Your task to perform on an android device: turn on data saver in the chrome app Image 0: 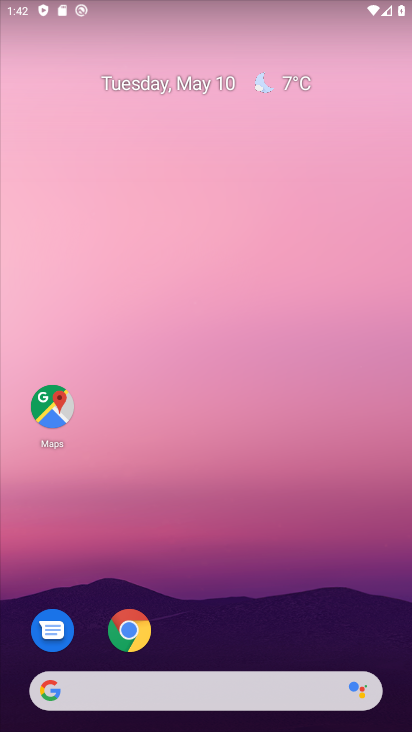
Step 0: drag from (272, 577) to (180, 0)
Your task to perform on an android device: turn on data saver in the chrome app Image 1: 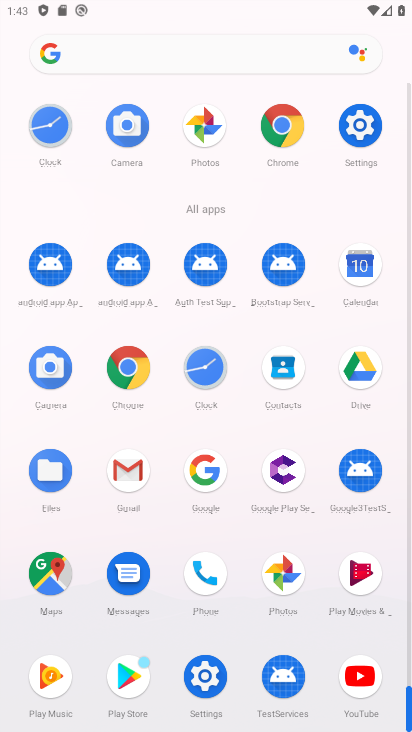
Step 1: click (124, 364)
Your task to perform on an android device: turn on data saver in the chrome app Image 2: 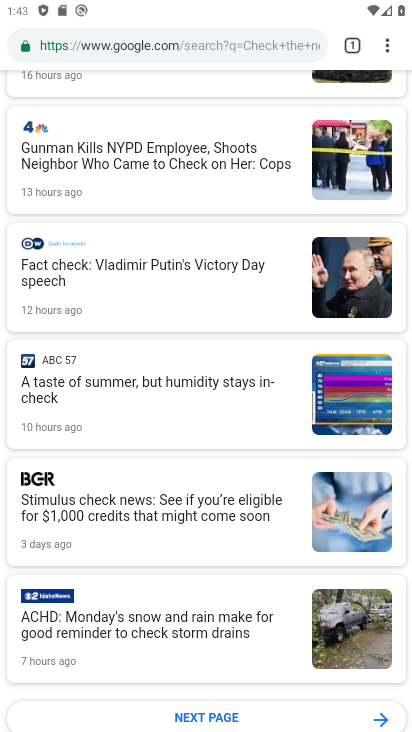
Step 2: drag from (384, 40) to (242, 502)
Your task to perform on an android device: turn on data saver in the chrome app Image 3: 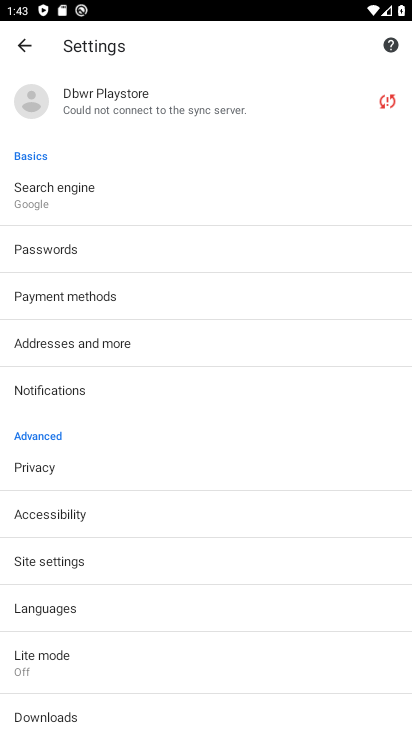
Step 3: drag from (153, 600) to (194, 206)
Your task to perform on an android device: turn on data saver in the chrome app Image 4: 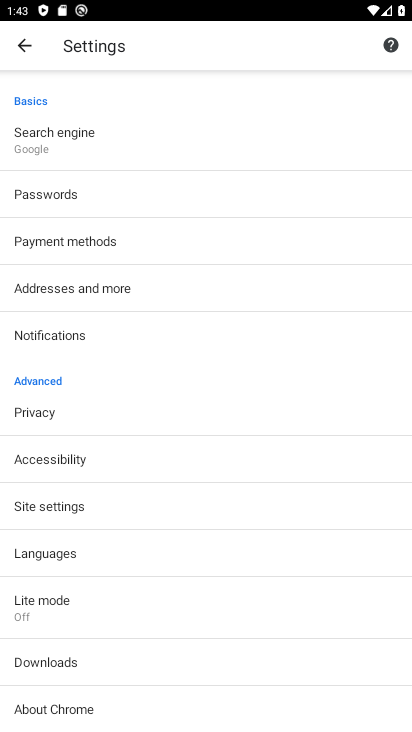
Step 4: click (73, 602)
Your task to perform on an android device: turn on data saver in the chrome app Image 5: 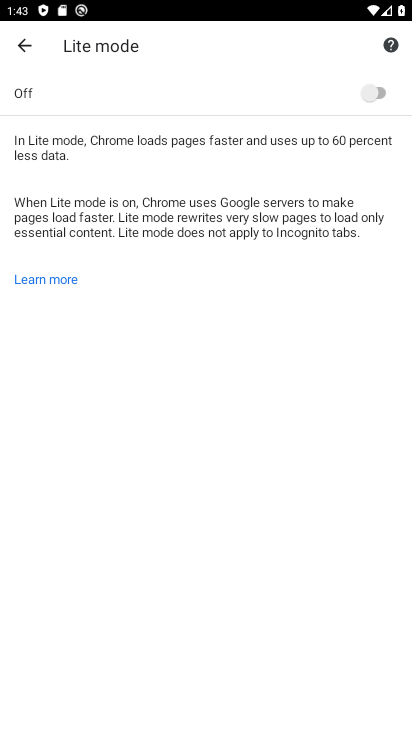
Step 5: click (375, 94)
Your task to perform on an android device: turn on data saver in the chrome app Image 6: 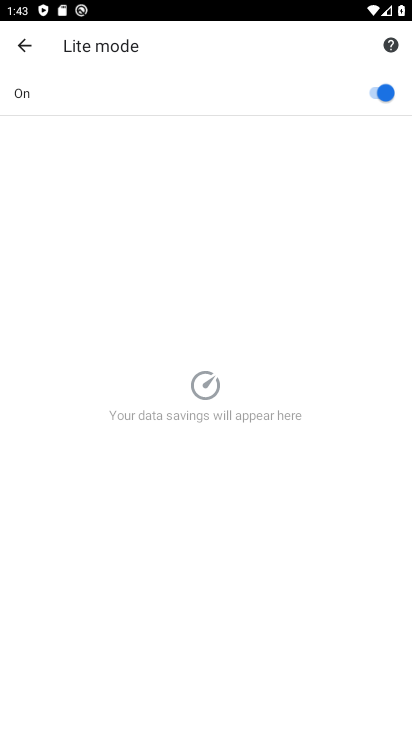
Step 6: task complete